Your task to perform on an android device: turn off location Image 0: 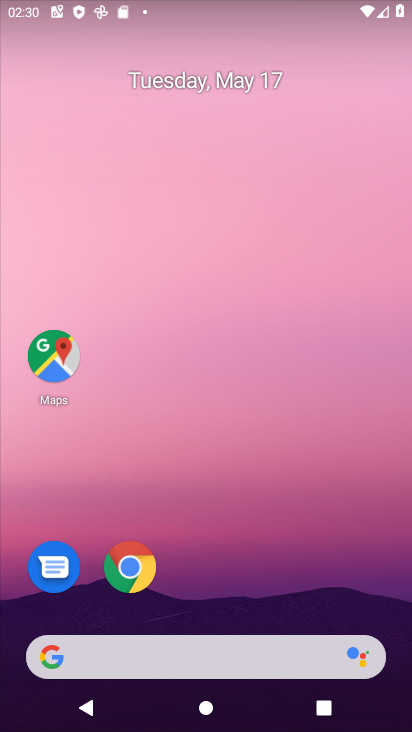
Step 0: drag from (399, 641) to (315, 260)
Your task to perform on an android device: turn off location Image 1: 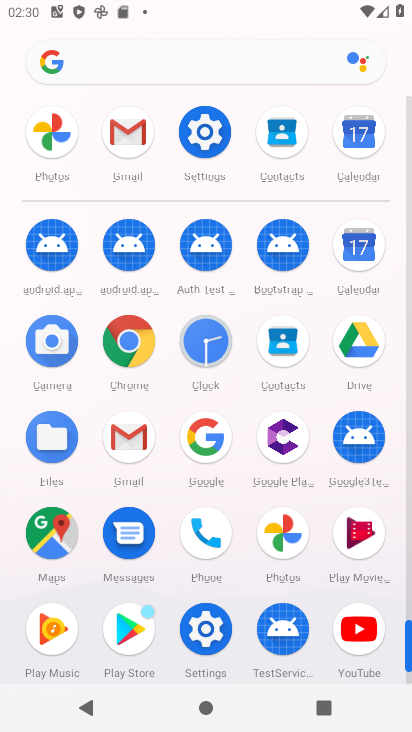
Step 1: click (211, 633)
Your task to perform on an android device: turn off location Image 2: 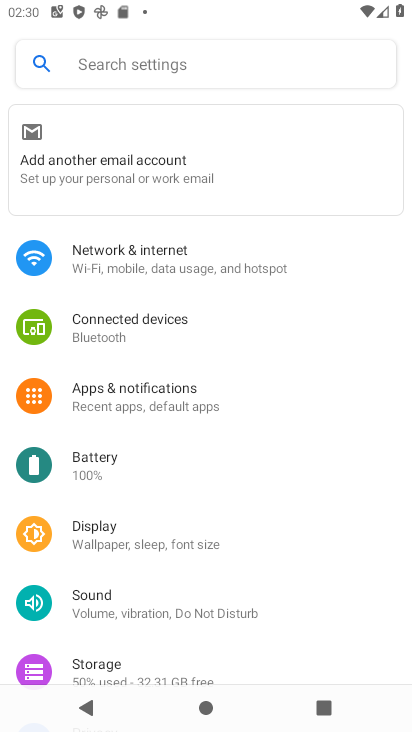
Step 2: drag from (285, 611) to (277, 165)
Your task to perform on an android device: turn off location Image 3: 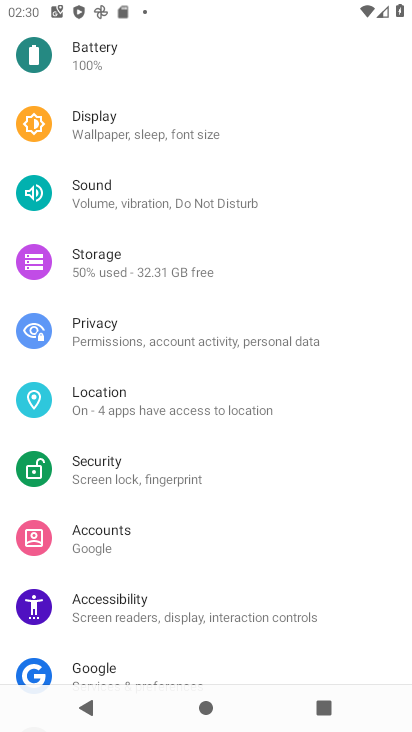
Step 3: click (112, 400)
Your task to perform on an android device: turn off location Image 4: 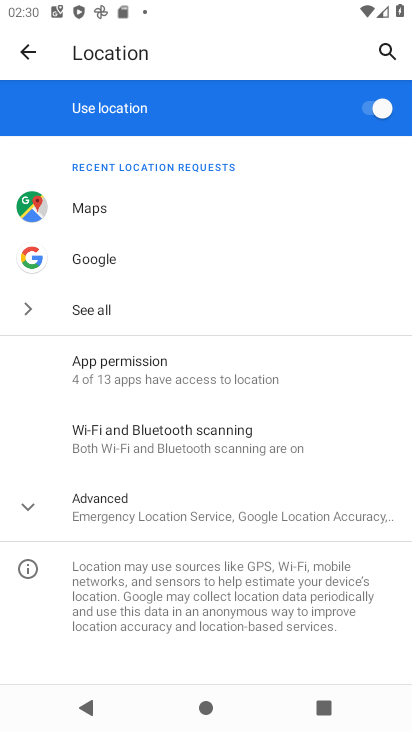
Step 4: click (366, 110)
Your task to perform on an android device: turn off location Image 5: 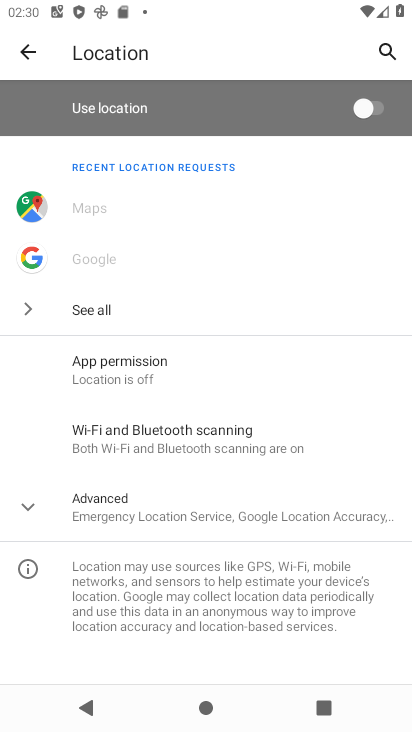
Step 5: task complete